Your task to perform on an android device: Open display settings Image 0: 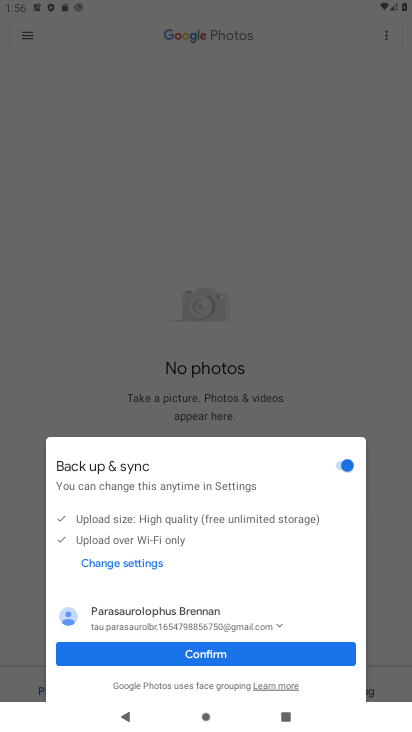
Step 0: press home button
Your task to perform on an android device: Open display settings Image 1: 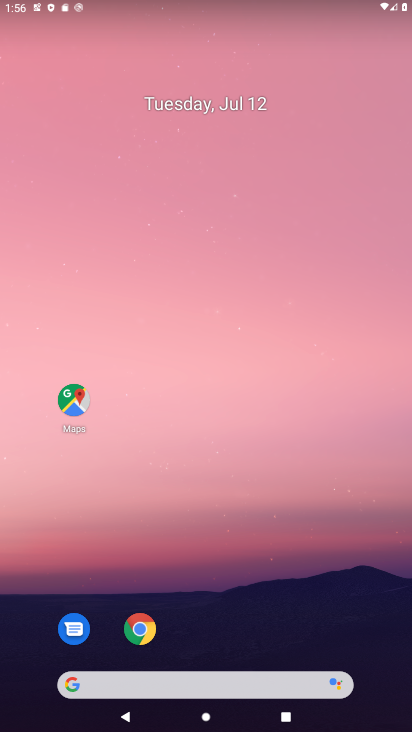
Step 1: drag from (260, 634) to (223, 109)
Your task to perform on an android device: Open display settings Image 2: 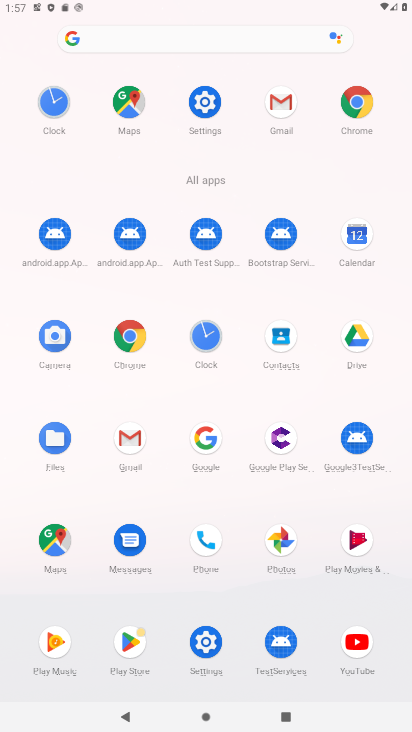
Step 2: click (204, 97)
Your task to perform on an android device: Open display settings Image 3: 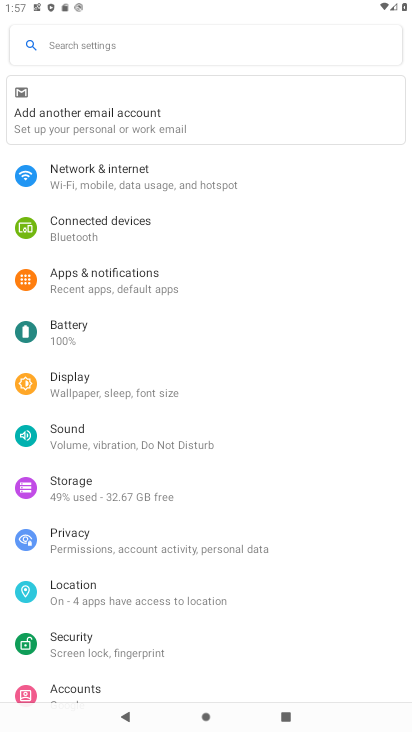
Step 3: click (160, 390)
Your task to perform on an android device: Open display settings Image 4: 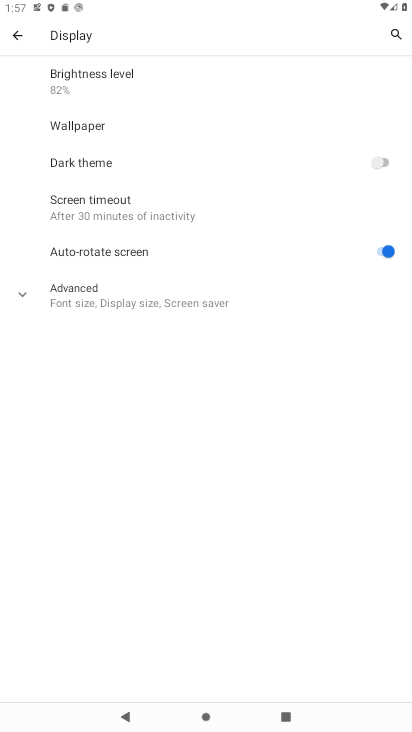
Step 4: task complete